Your task to perform on an android device: uninstall "Microsoft Outlook" Image 0: 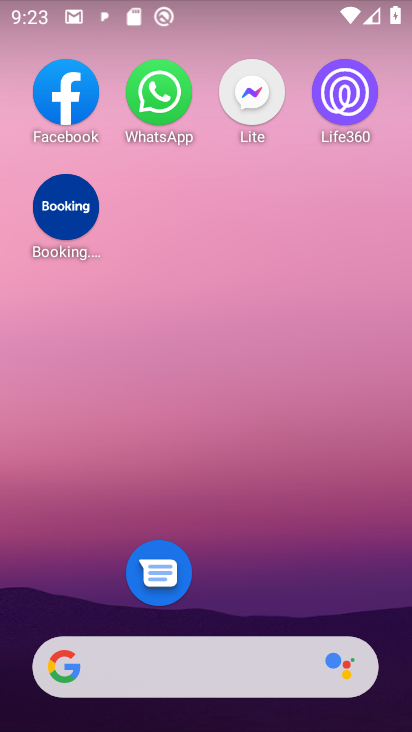
Step 0: drag from (208, 602) to (226, 113)
Your task to perform on an android device: uninstall "Microsoft Outlook" Image 1: 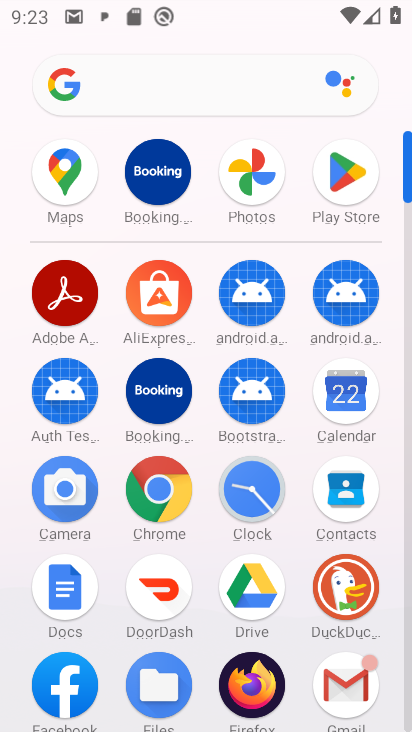
Step 1: click (345, 182)
Your task to perform on an android device: uninstall "Microsoft Outlook" Image 2: 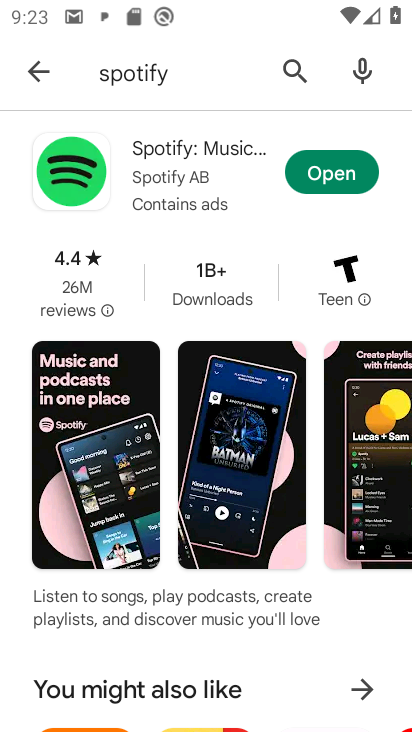
Step 2: click (218, 80)
Your task to perform on an android device: uninstall "Microsoft Outlook" Image 3: 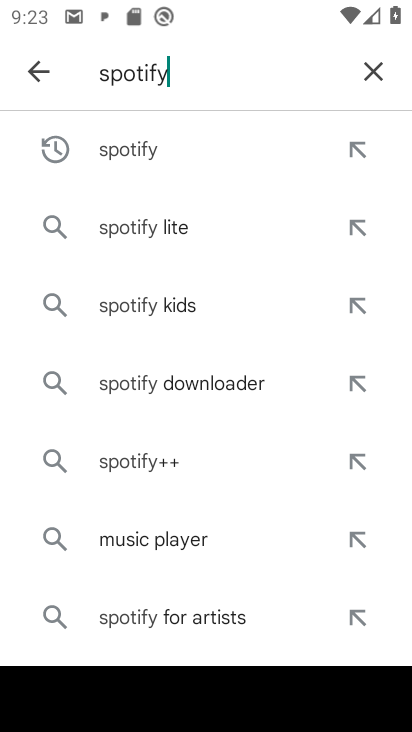
Step 3: click (375, 62)
Your task to perform on an android device: uninstall "Microsoft Outlook" Image 4: 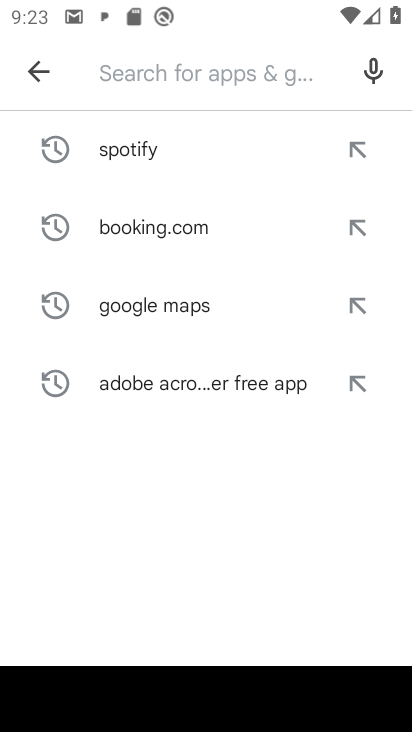
Step 4: type "microsoft Outlook"
Your task to perform on an android device: uninstall "Microsoft Outlook" Image 5: 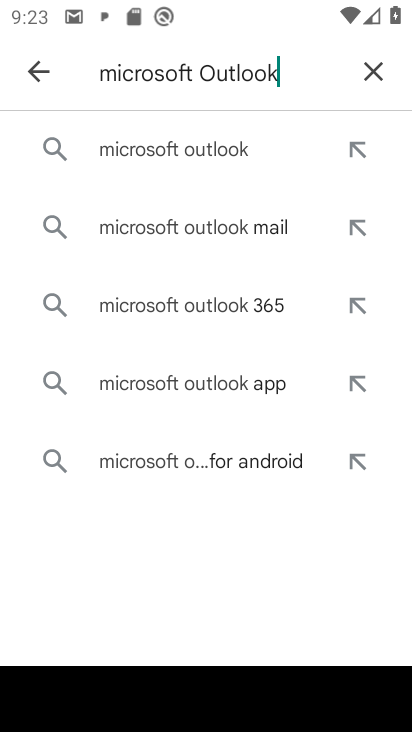
Step 5: click (145, 139)
Your task to perform on an android device: uninstall "Microsoft Outlook" Image 6: 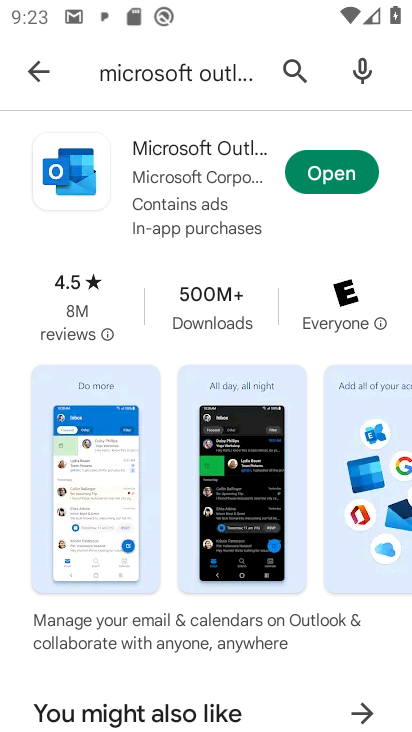
Step 6: click (89, 162)
Your task to perform on an android device: uninstall "Microsoft Outlook" Image 7: 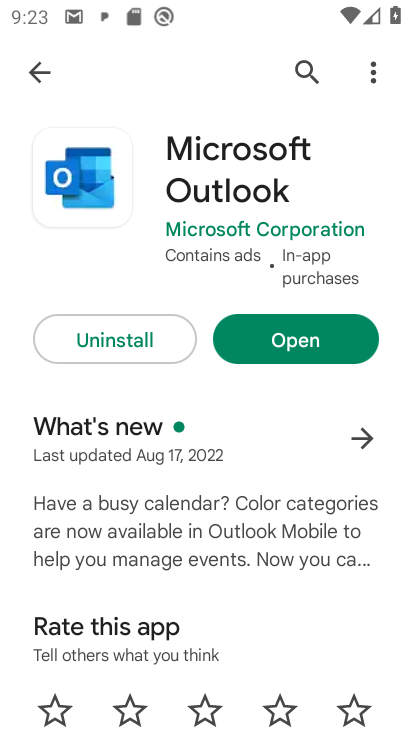
Step 7: click (106, 334)
Your task to perform on an android device: uninstall "Microsoft Outlook" Image 8: 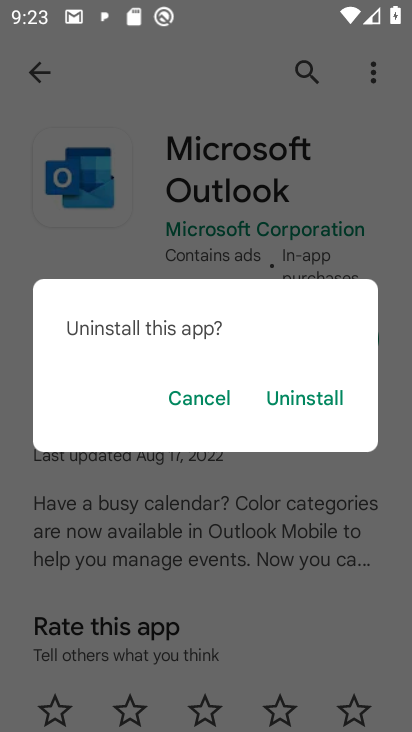
Step 8: click (328, 405)
Your task to perform on an android device: uninstall "Microsoft Outlook" Image 9: 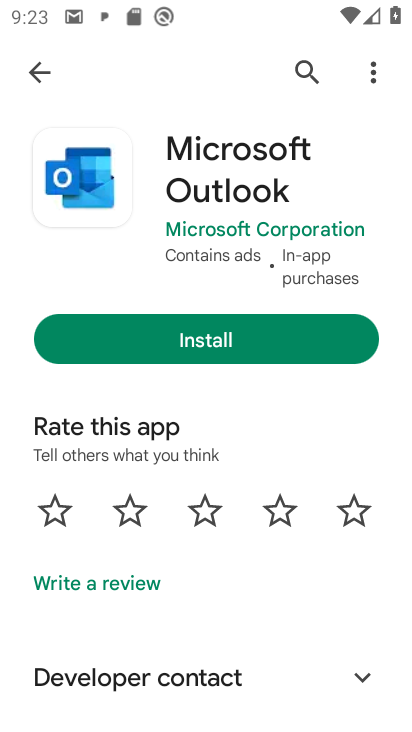
Step 9: task complete